Your task to perform on an android device: Open battery settings Image 0: 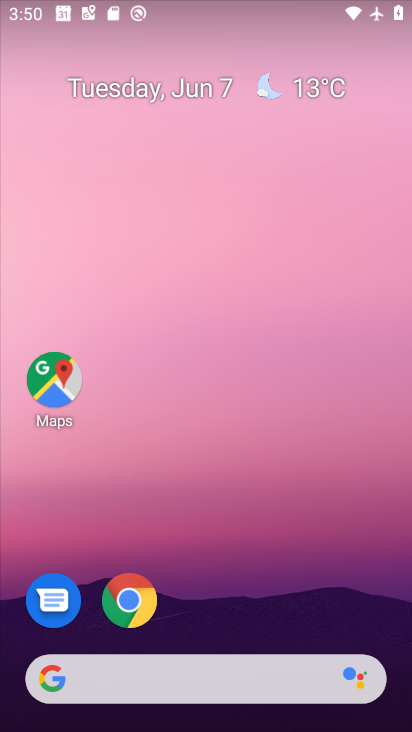
Step 0: drag from (331, 550) to (257, 181)
Your task to perform on an android device: Open battery settings Image 1: 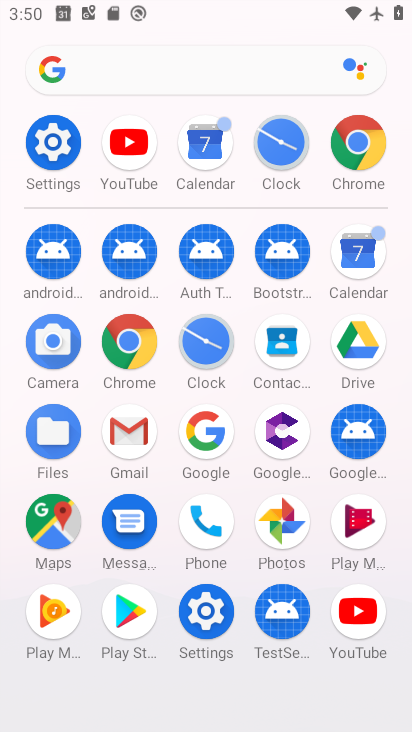
Step 1: click (48, 147)
Your task to perform on an android device: Open battery settings Image 2: 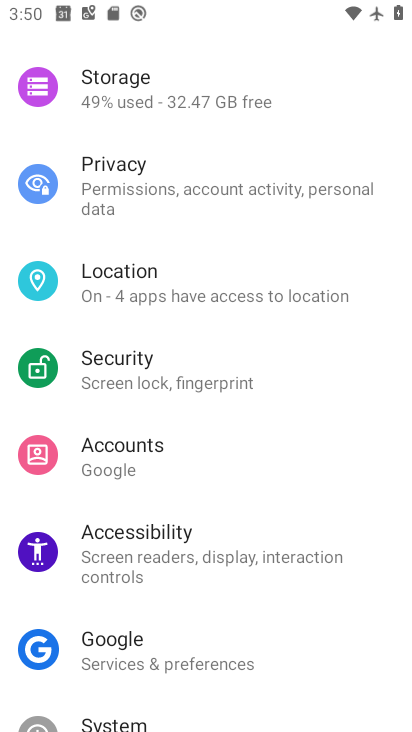
Step 2: drag from (175, 581) to (241, 671)
Your task to perform on an android device: Open battery settings Image 3: 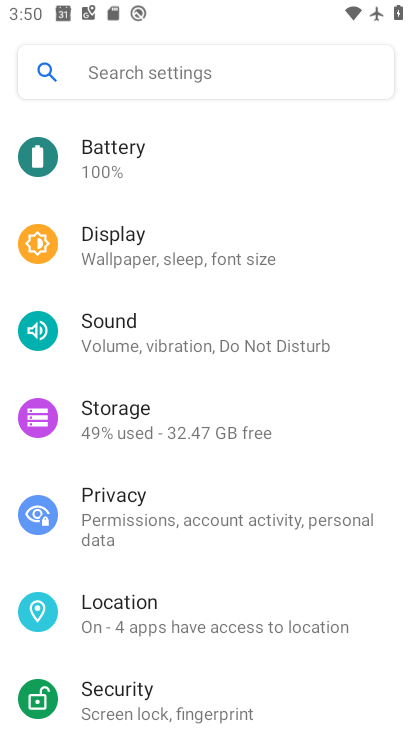
Step 3: click (120, 171)
Your task to perform on an android device: Open battery settings Image 4: 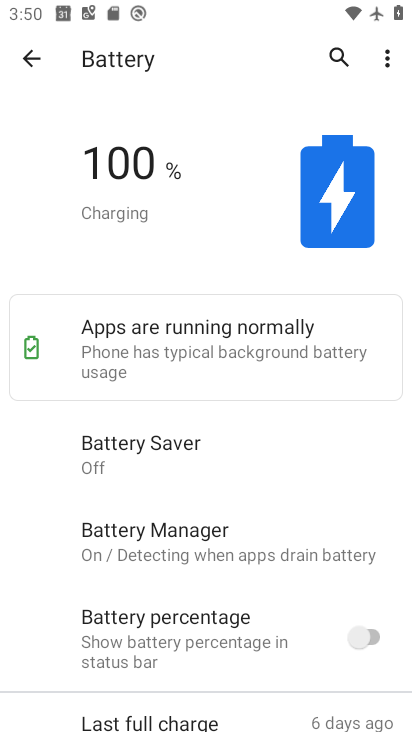
Step 4: task complete